Your task to perform on an android device: turn off data saver in the chrome app Image 0: 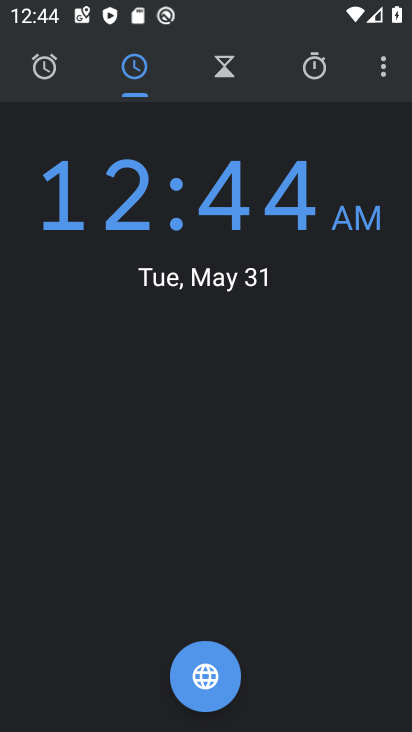
Step 0: press home button
Your task to perform on an android device: turn off data saver in the chrome app Image 1: 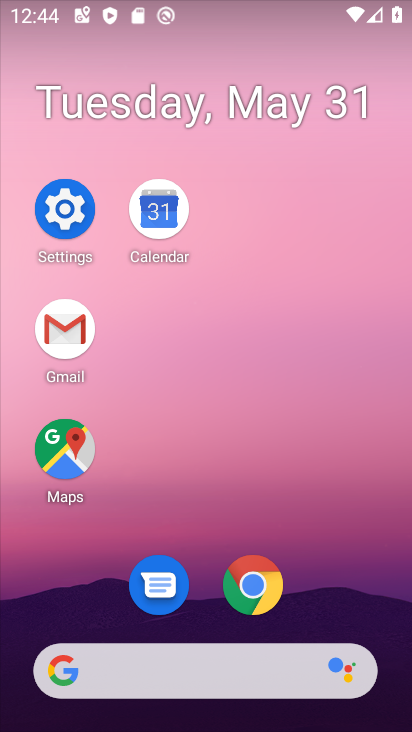
Step 1: click (263, 578)
Your task to perform on an android device: turn off data saver in the chrome app Image 2: 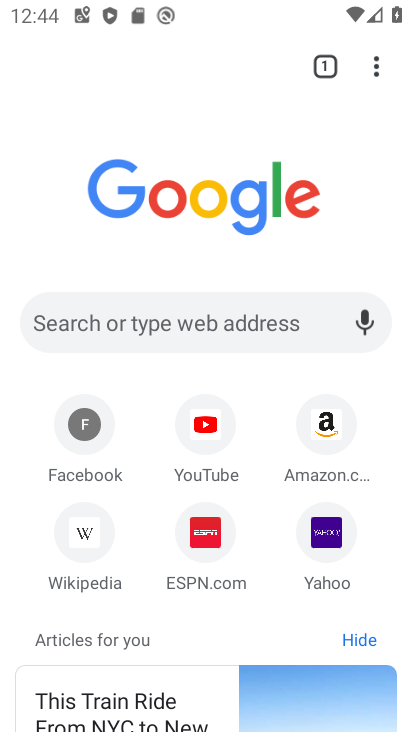
Step 2: click (388, 61)
Your task to perform on an android device: turn off data saver in the chrome app Image 3: 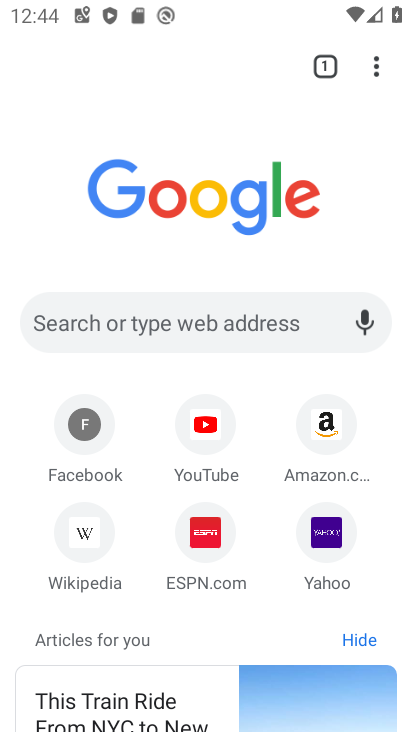
Step 3: click (374, 81)
Your task to perform on an android device: turn off data saver in the chrome app Image 4: 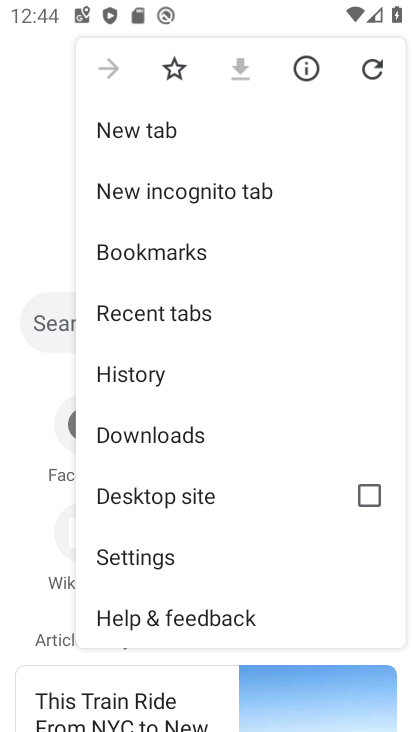
Step 4: drag from (278, 444) to (292, 104)
Your task to perform on an android device: turn off data saver in the chrome app Image 5: 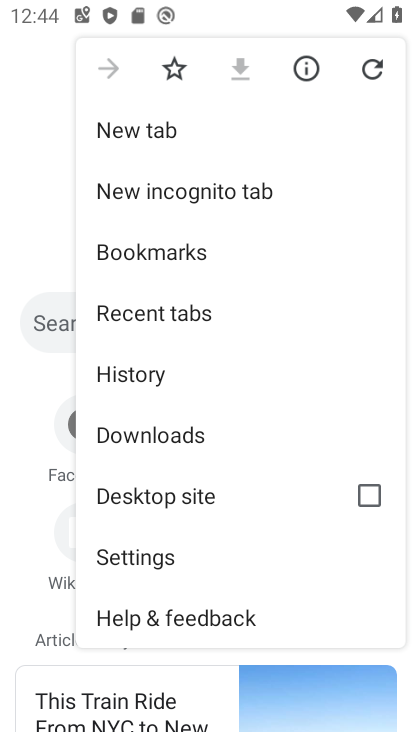
Step 5: click (223, 540)
Your task to perform on an android device: turn off data saver in the chrome app Image 6: 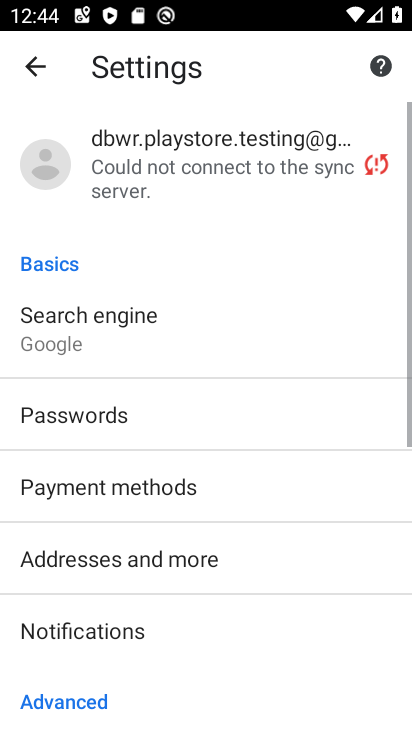
Step 6: drag from (223, 540) to (255, 211)
Your task to perform on an android device: turn off data saver in the chrome app Image 7: 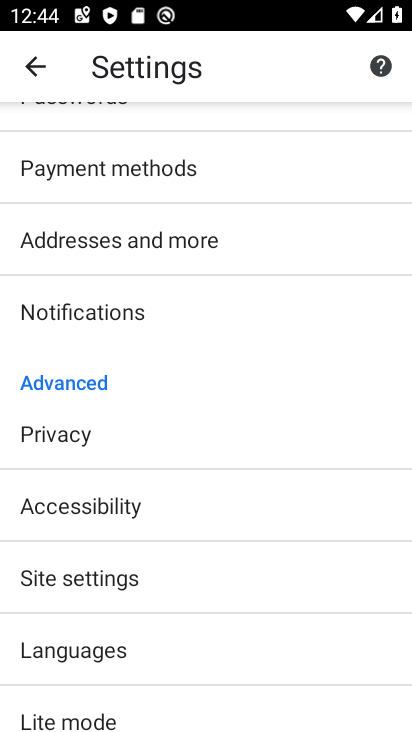
Step 7: drag from (205, 604) to (254, 198)
Your task to perform on an android device: turn off data saver in the chrome app Image 8: 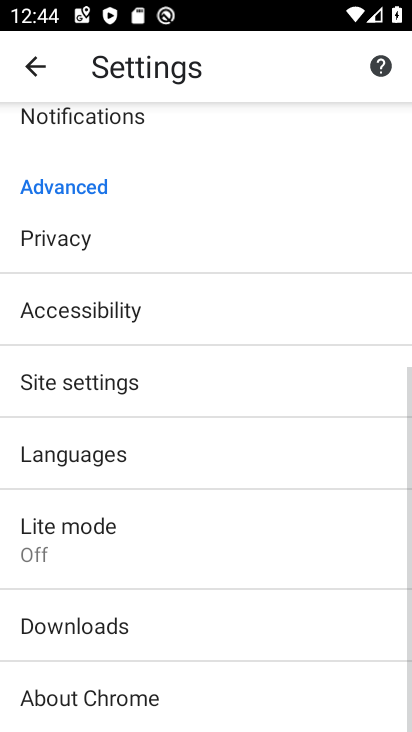
Step 8: click (144, 530)
Your task to perform on an android device: turn off data saver in the chrome app Image 9: 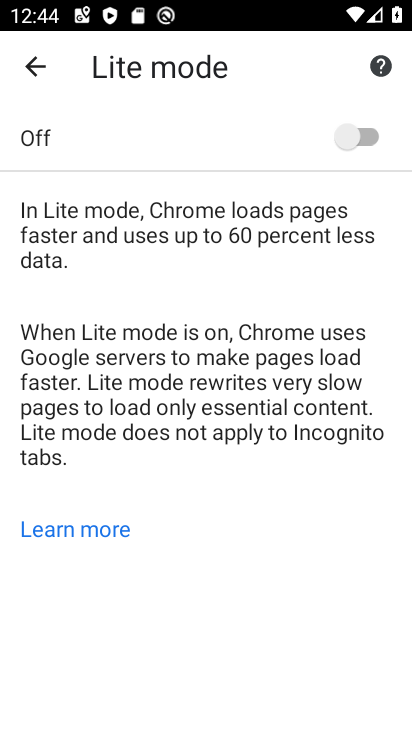
Step 9: task complete